Your task to perform on an android device: move a message to another label in the gmail app Image 0: 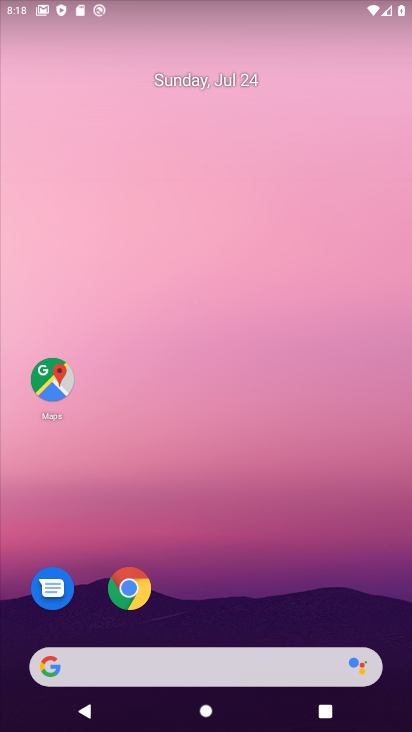
Step 0: drag from (146, 602) to (165, 77)
Your task to perform on an android device: move a message to another label in the gmail app Image 1: 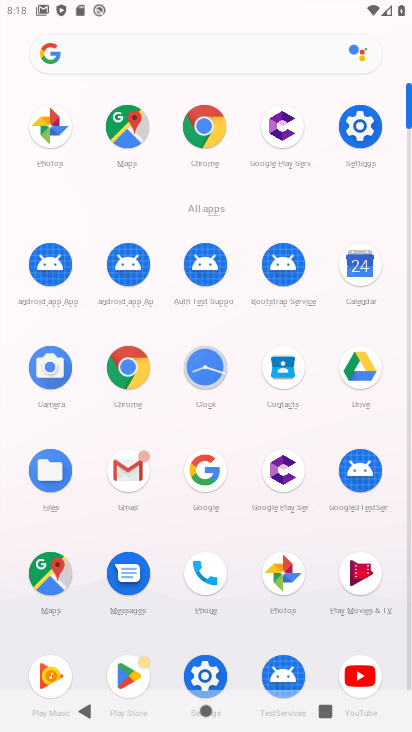
Step 1: click (125, 471)
Your task to perform on an android device: move a message to another label in the gmail app Image 2: 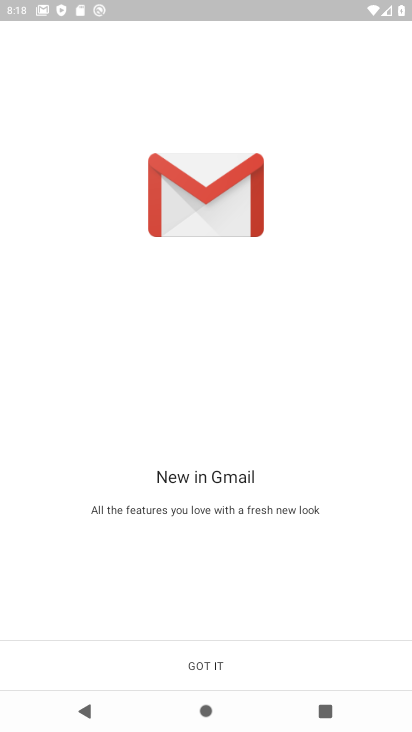
Step 2: click (174, 673)
Your task to perform on an android device: move a message to another label in the gmail app Image 3: 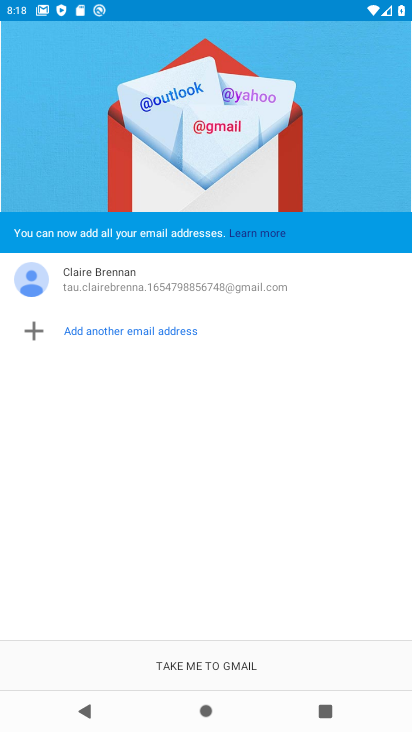
Step 3: click (174, 673)
Your task to perform on an android device: move a message to another label in the gmail app Image 4: 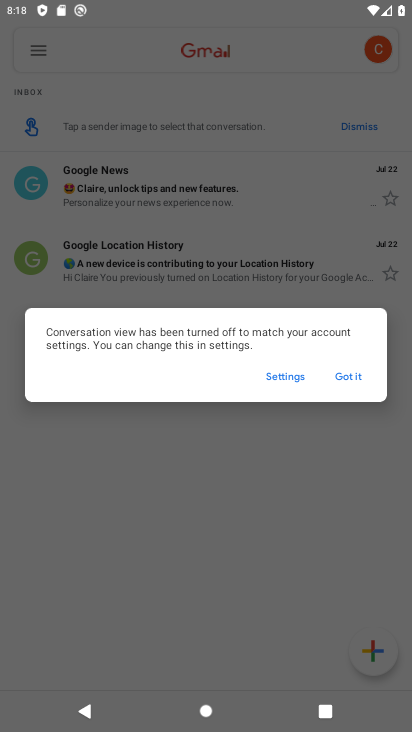
Step 4: click (352, 374)
Your task to perform on an android device: move a message to another label in the gmail app Image 5: 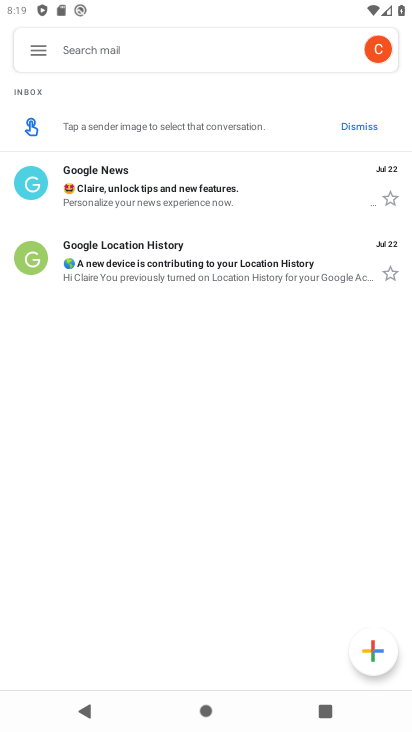
Step 5: click (40, 53)
Your task to perform on an android device: move a message to another label in the gmail app Image 6: 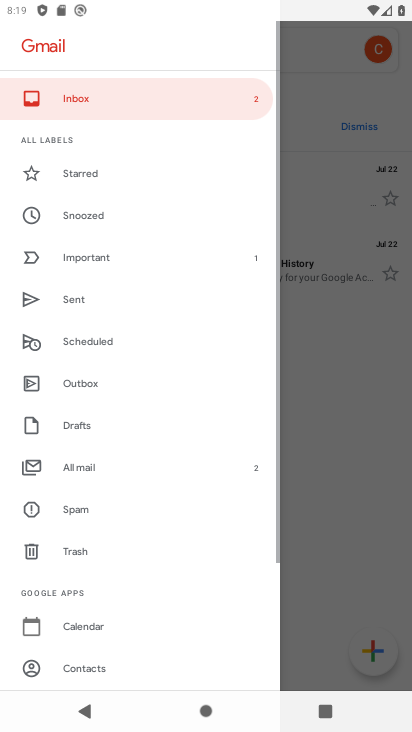
Step 6: click (300, 425)
Your task to perform on an android device: move a message to another label in the gmail app Image 7: 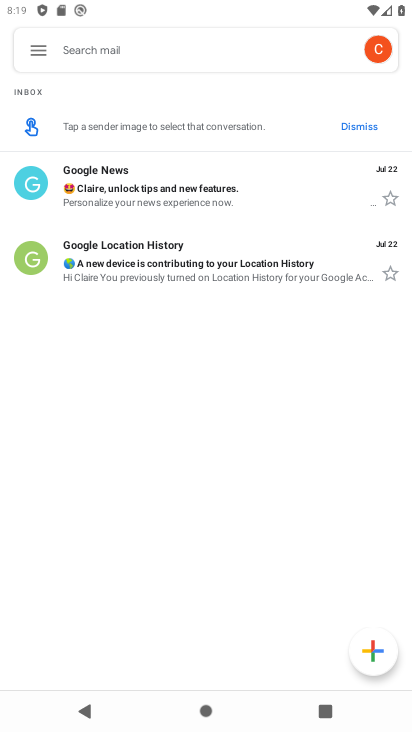
Step 7: click (123, 189)
Your task to perform on an android device: move a message to another label in the gmail app Image 8: 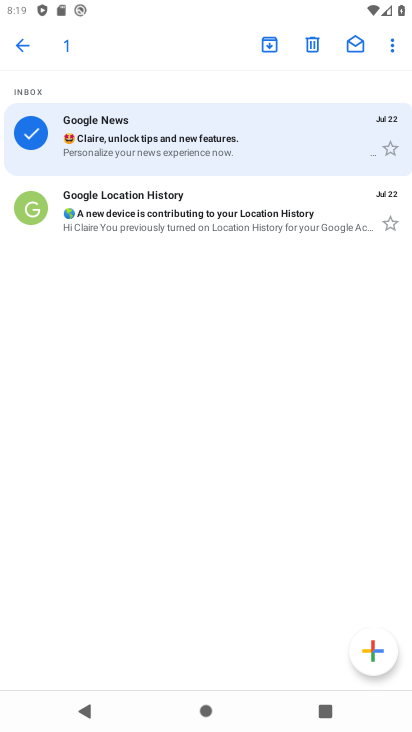
Step 8: click (400, 28)
Your task to perform on an android device: move a message to another label in the gmail app Image 9: 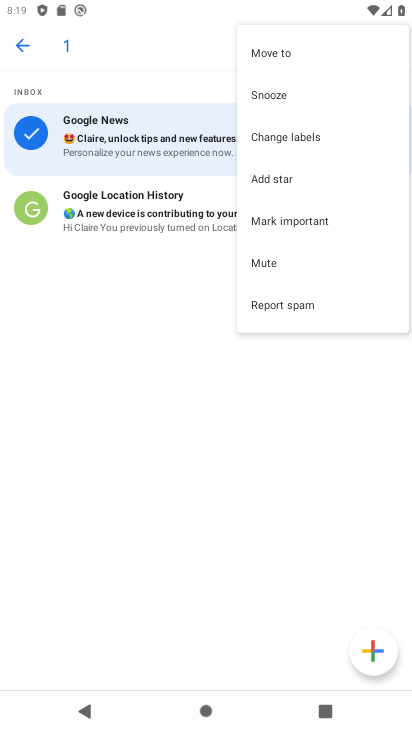
Step 9: click (327, 134)
Your task to perform on an android device: move a message to another label in the gmail app Image 10: 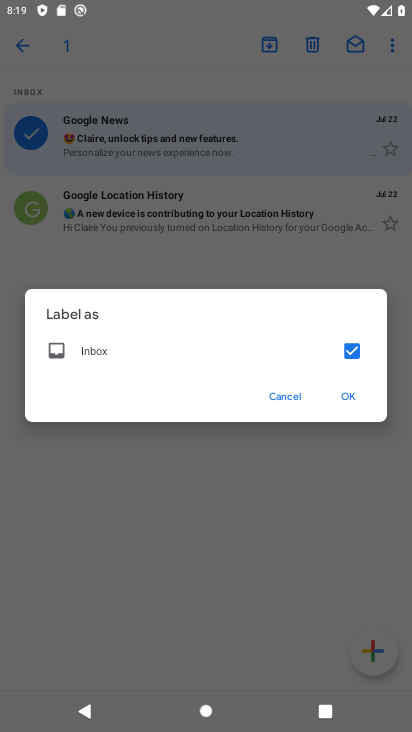
Step 10: click (365, 403)
Your task to perform on an android device: move a message to another label in the gmail app Image 11: 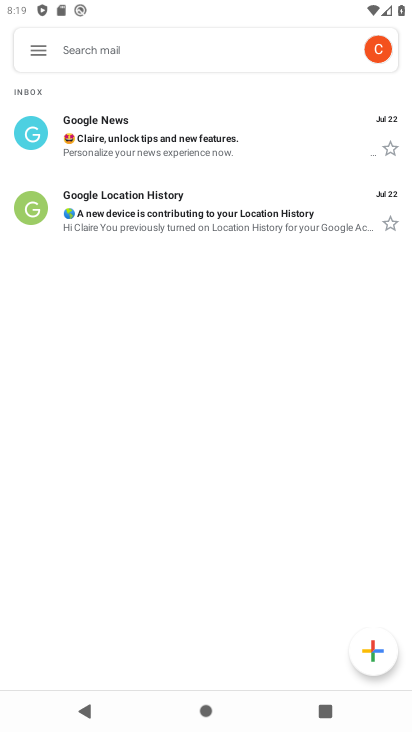
Step 11: task complete